Your task to perform on an android device: delete a single message in the gmail app Image 0: 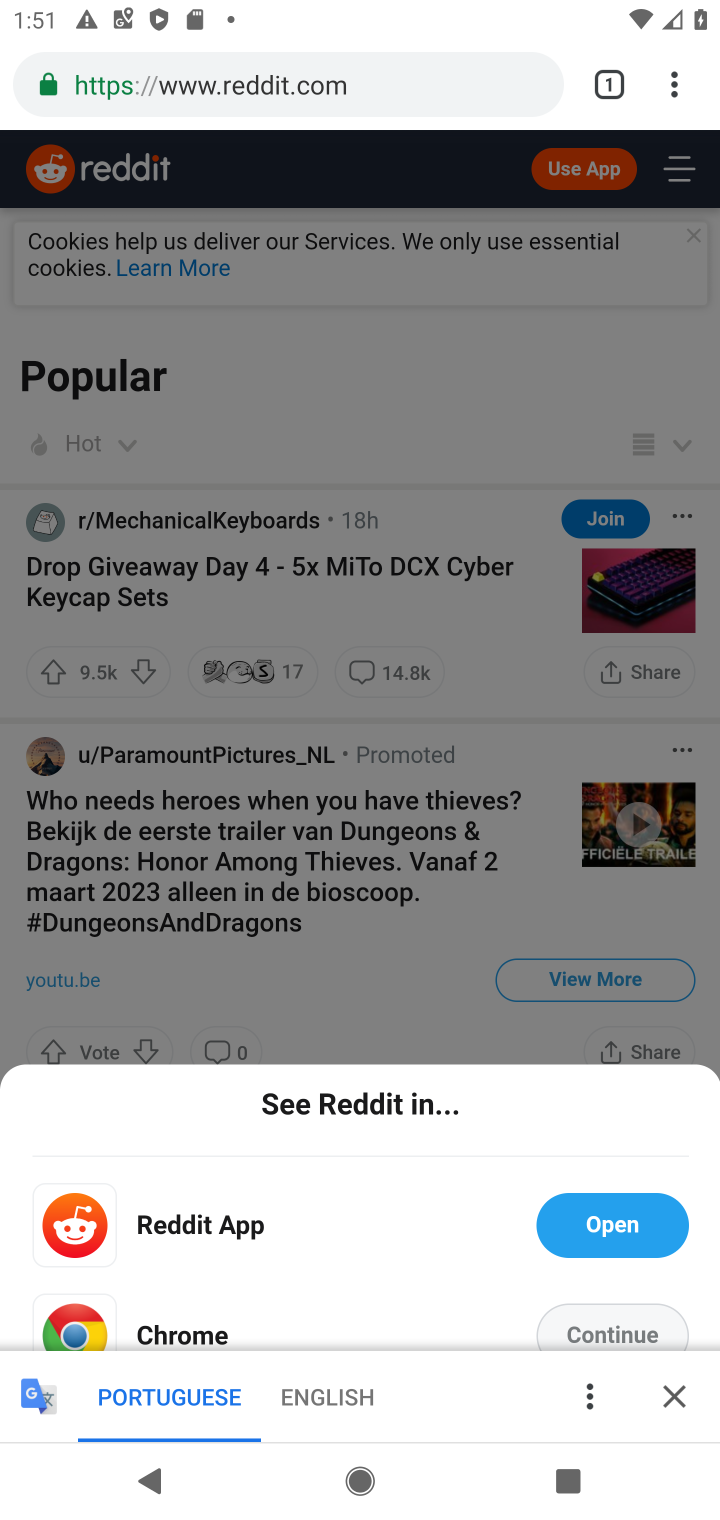
Step 0: press home button
Your task to perform on an android device: delete a single message in the gmail app Image 1: 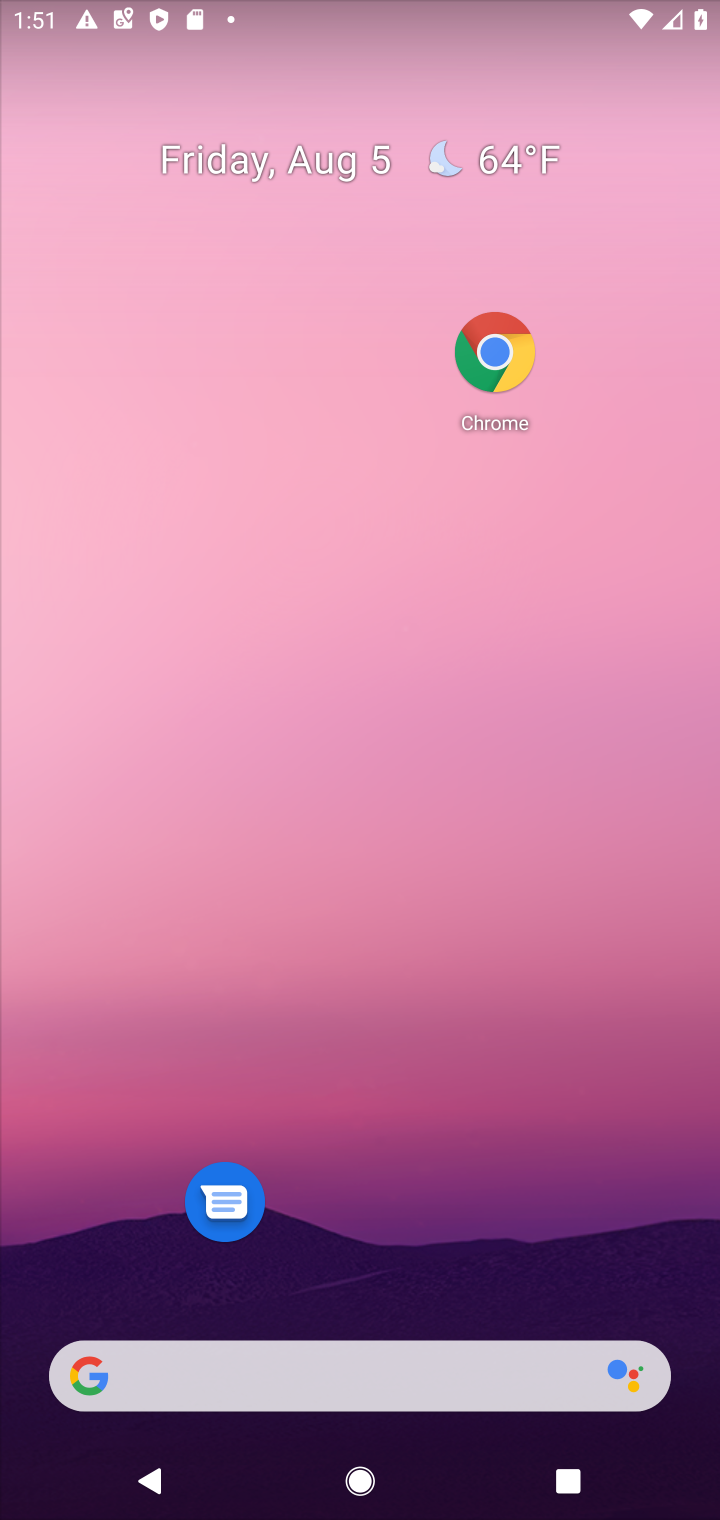
Step 1: drag from (517, 1134) to (548, 28)
Your task to perform on an android device: delete a single message in the gmail app Image 2: 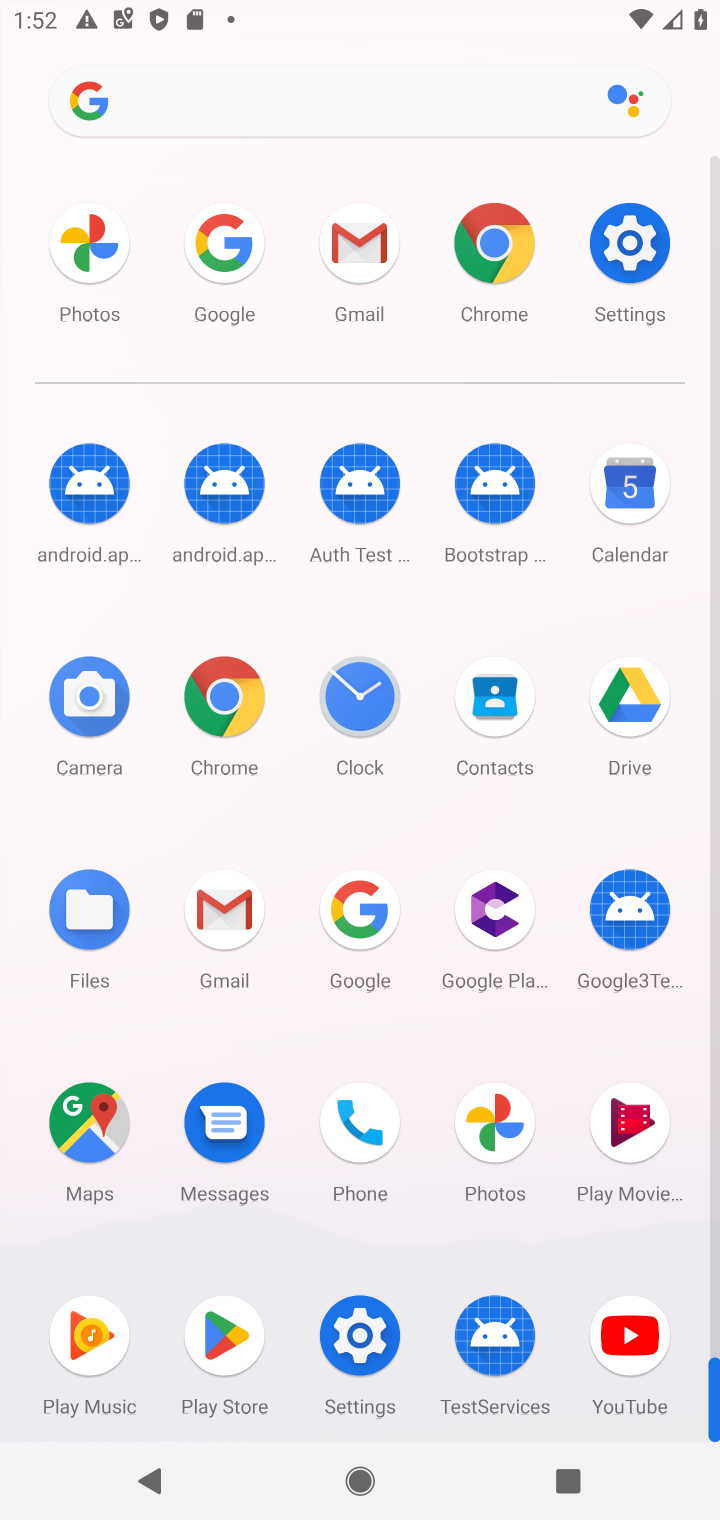
Step 2: click (231, 885)
Your task to perform on an android device: delete a single message in the gmail app Image 3: 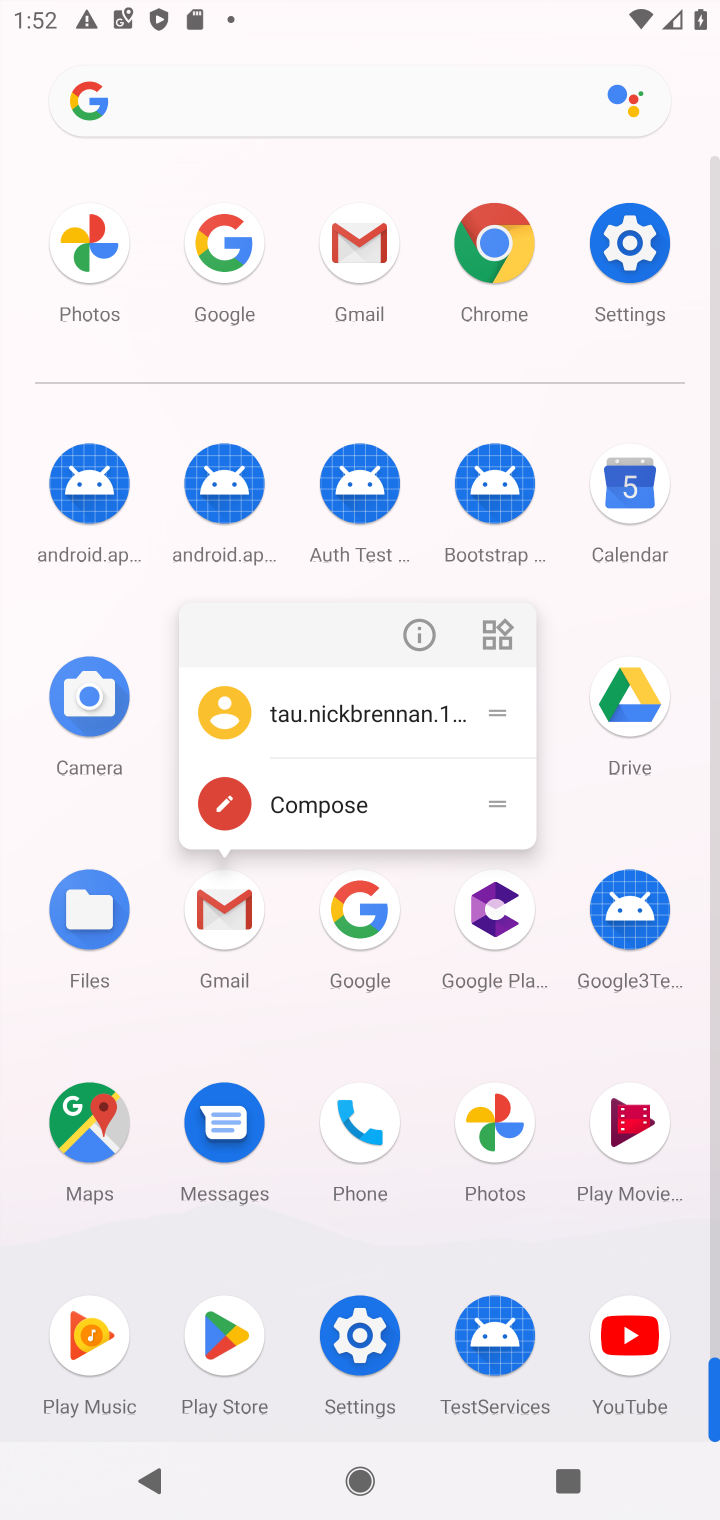
Step 3: click (231, 903)
Your task to perform on an android device: delete a single message in the gmail app Image 4: 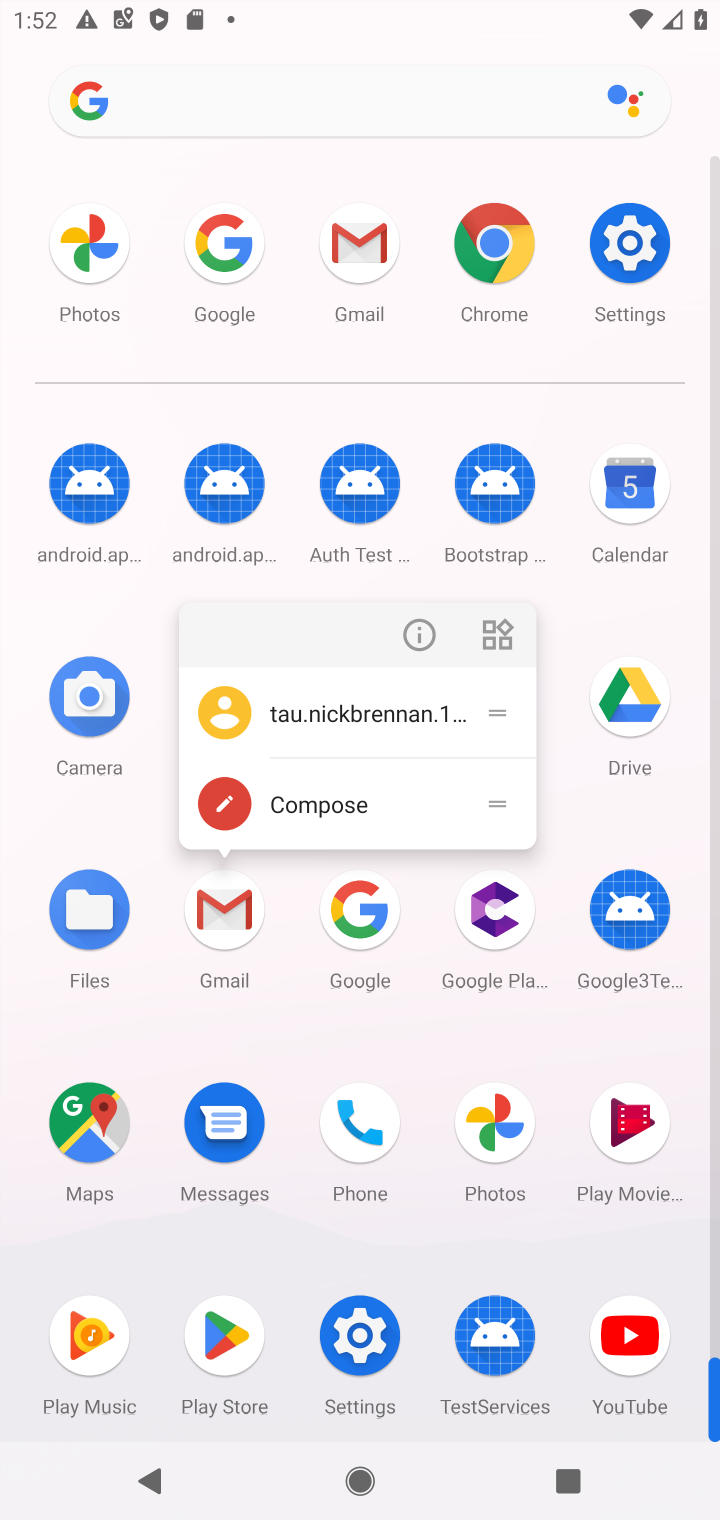
Step 4: click (229, 920)
Your task to perform on an android device: delete a single message in the gmail app Image 5: 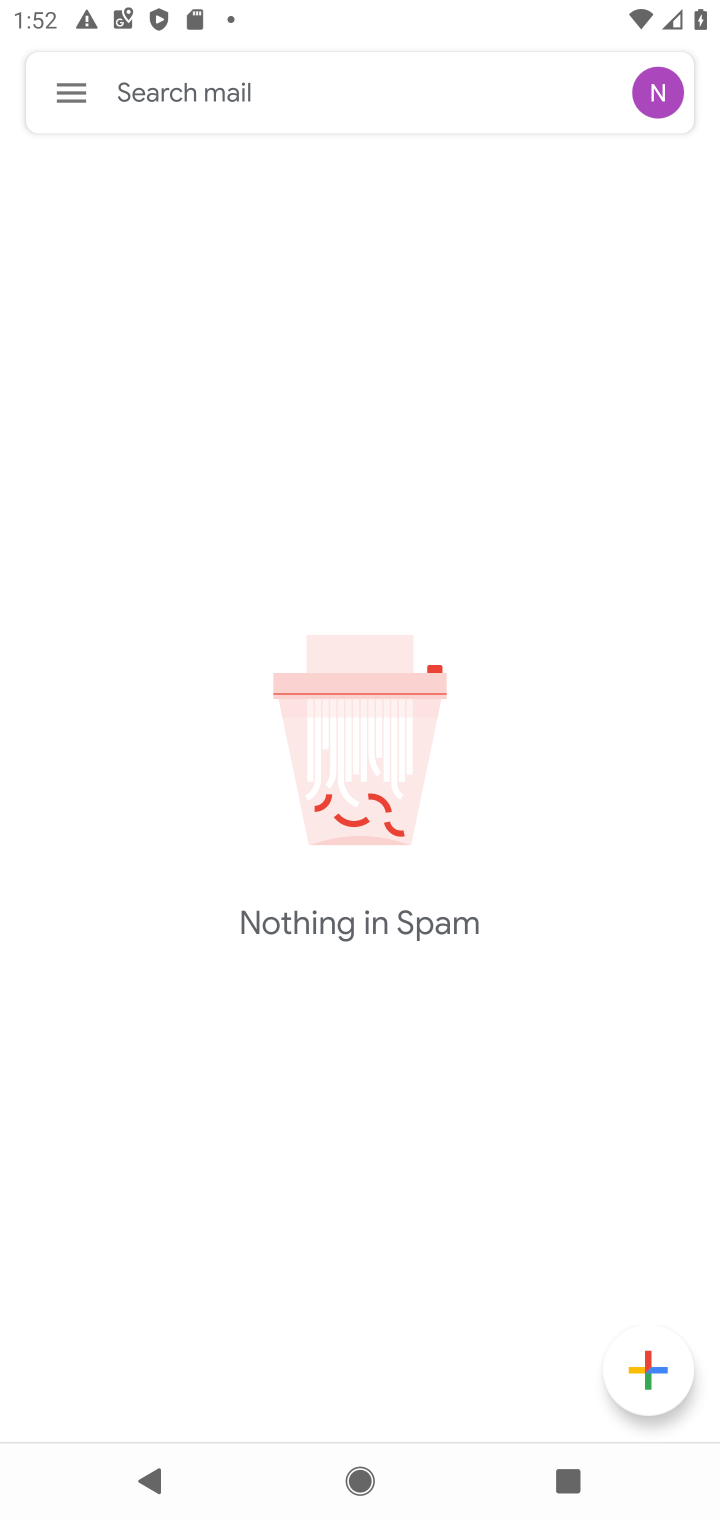
Step 5: click (76, 93)
Your task to perform on an android device: delete a single message in the gmail app Image 6: 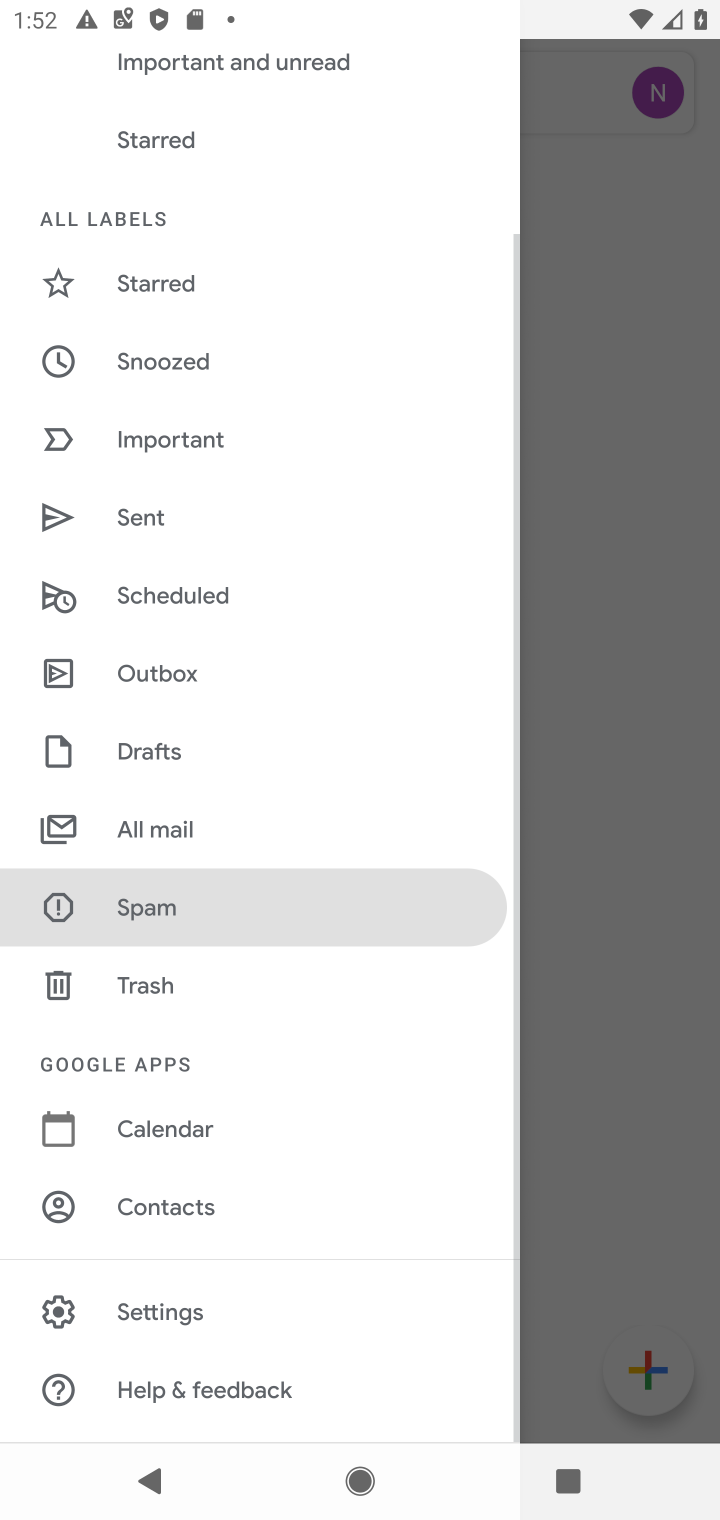
Step 6: click (167, 832)
Your task to perform on an android device: delete a single message in the gmail app Image 7: 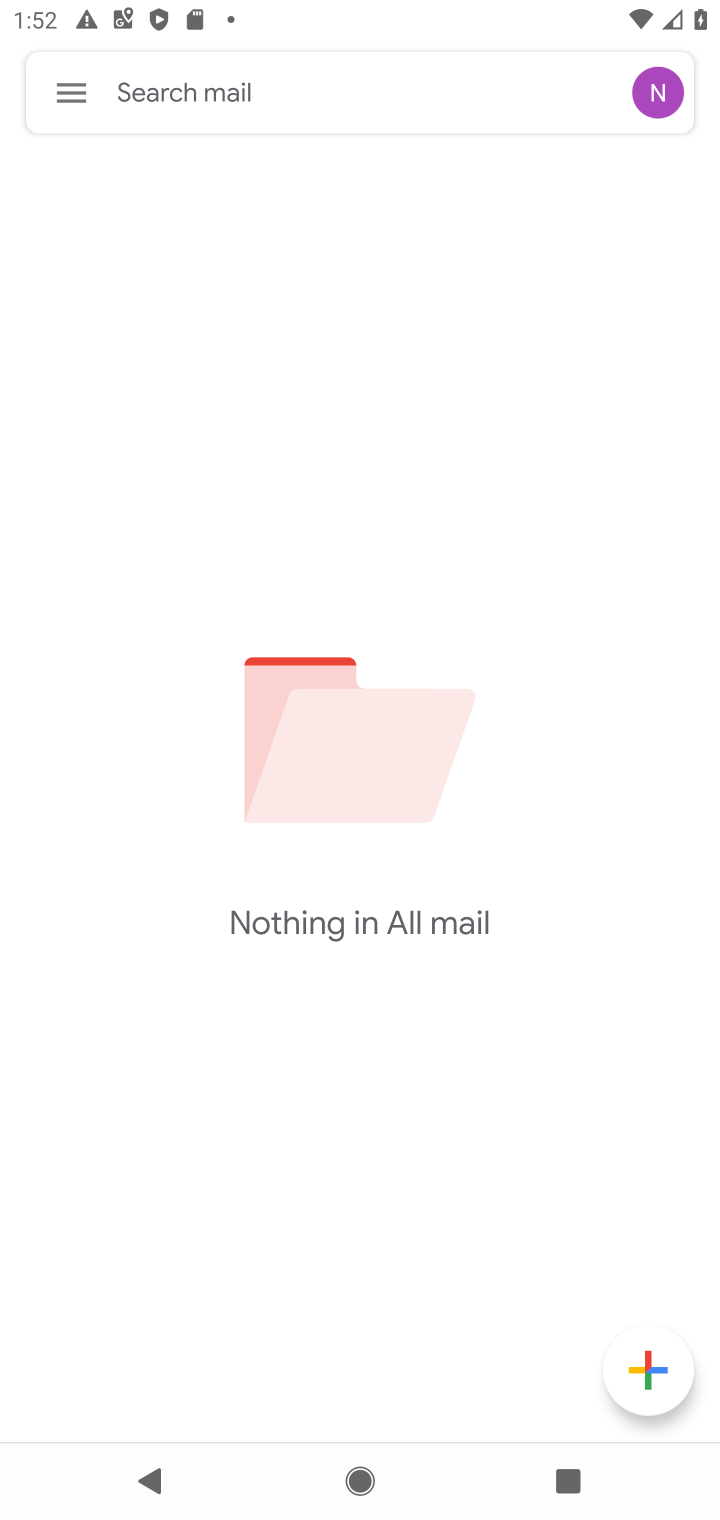
Step 7: task complete